Your task to perform on an android device: Open the map Image 0: 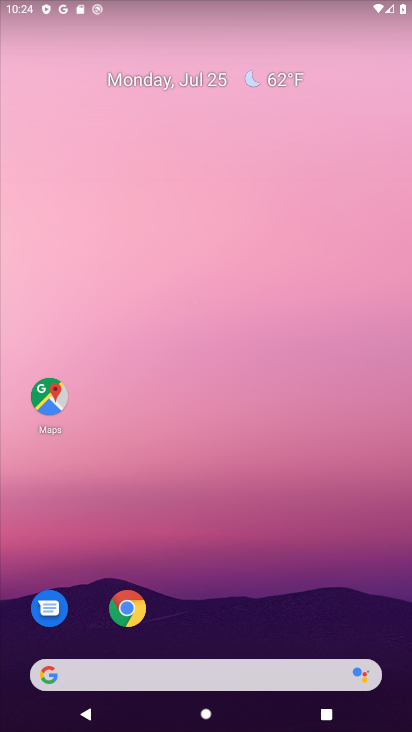
Step 0: click (51, 399)
Your task to perform on an android device: Open the map Image 1: 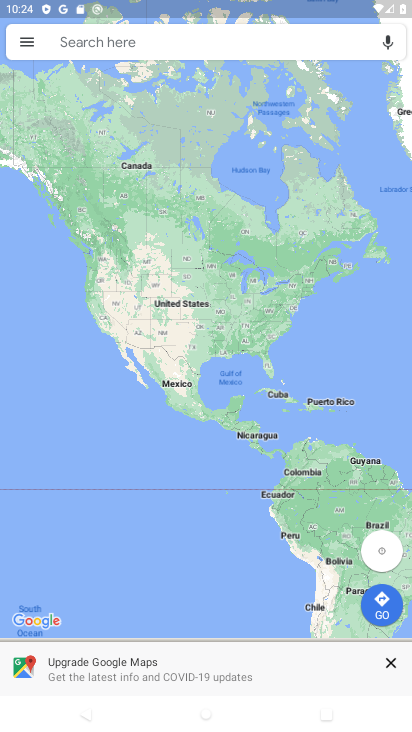
Step 1: task complete